Your task to perform on an android device: Go to privacy settings Image 0: 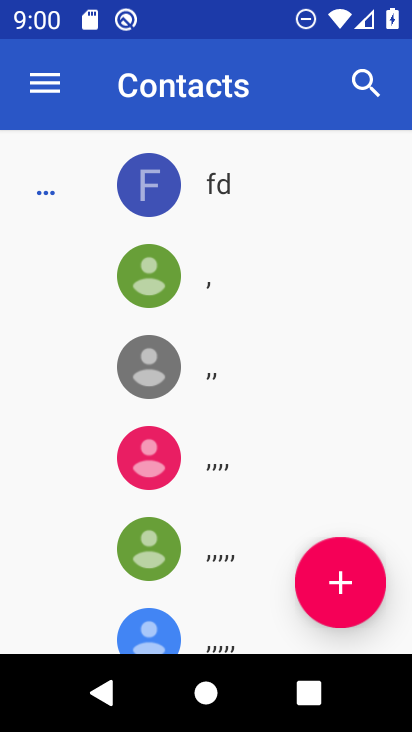
Step 0: press home button
Your task to perform on an android device: Go to privacy settings Image 1: 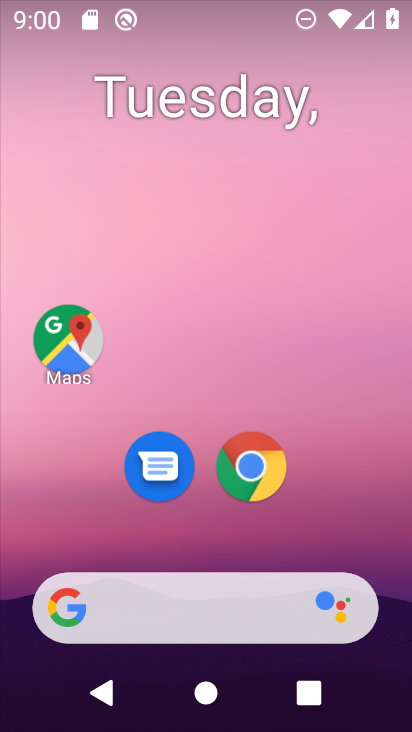
Step 1: drag from (205, 538) to (249, 5)
Your task to perform on an android device: Go to privacy settings Image 2: 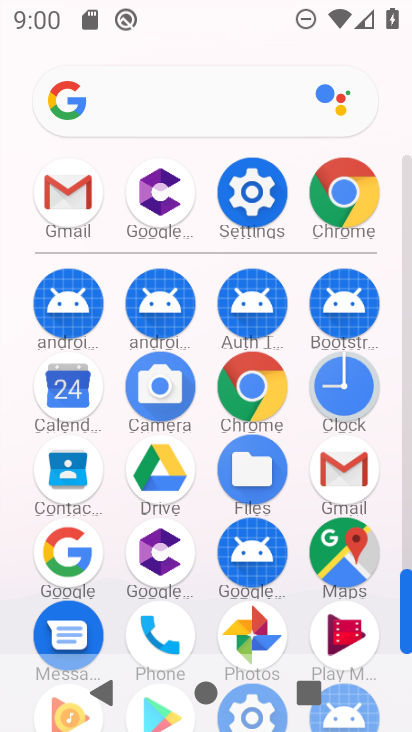
Step 2: click (249, 203)
Your task to perform on an android device: Go to privacy settings Image 3: 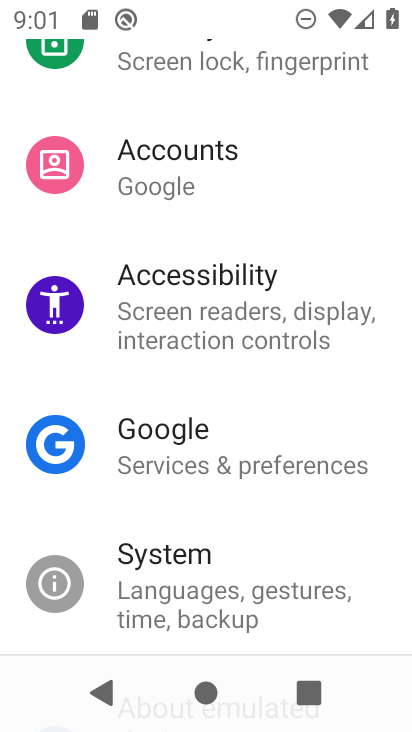
Step 3: drag from (225, 560) to (187, 723)
Your task to perform on an android device: Go to privacy settings Image 4: 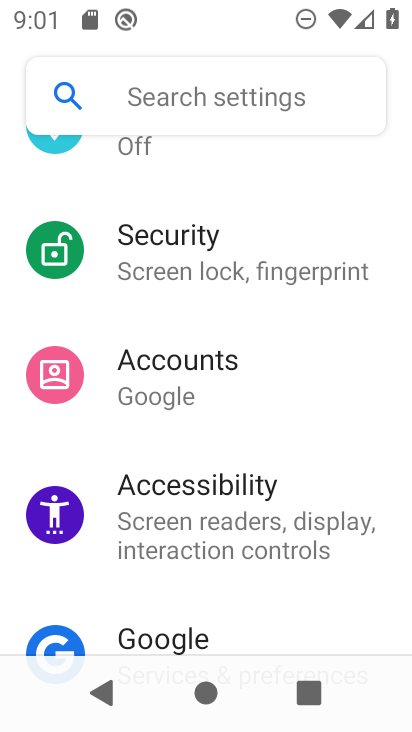
Step 4: drag from (225, 262) to (216, 546)
Your task to perform on an android device: Go to privacy settings Image 5: 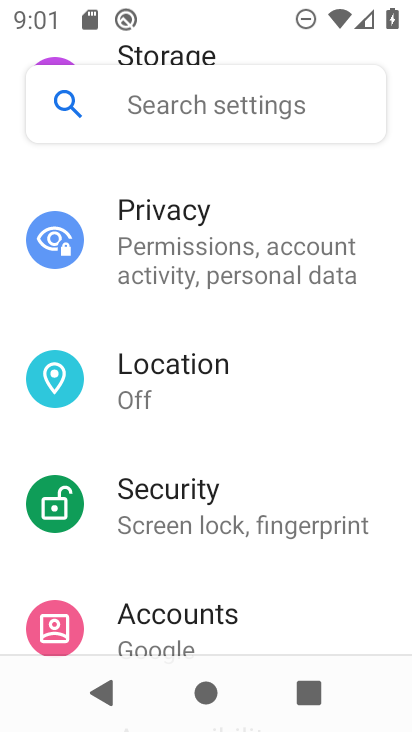
Step 5: click (198, 268)
Your task to perform on an android device: Go to privacy settings Image 6: 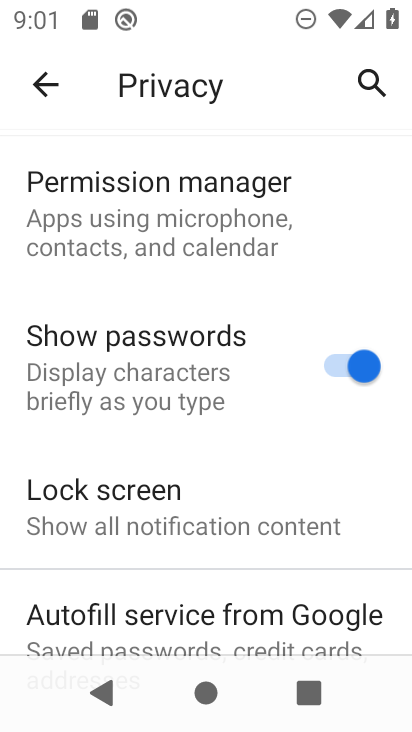
Step 6: task complete